Your task to perform on an android device: Open accessibility settings Image 0: 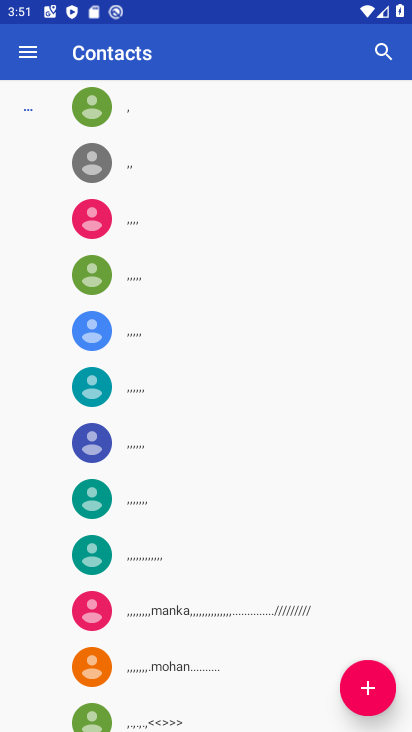
Step 0: press home button
Your task to perform on an android device: Open accessibility settings Image 1: 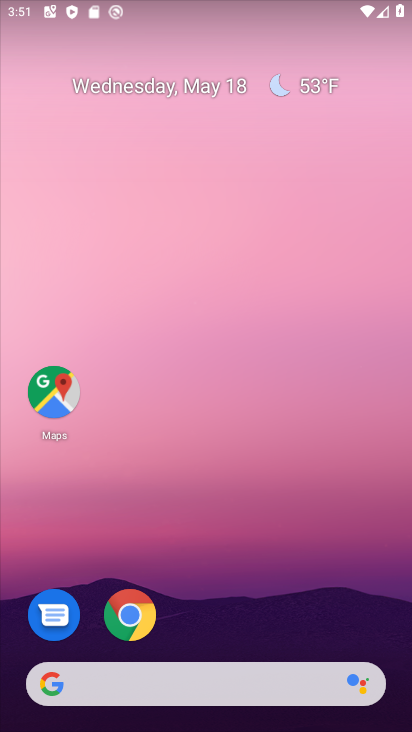
Step 1: drag from (282, 622) to (306, 68)
Your task to perform on an android device: Open accessibility settings Image 2: 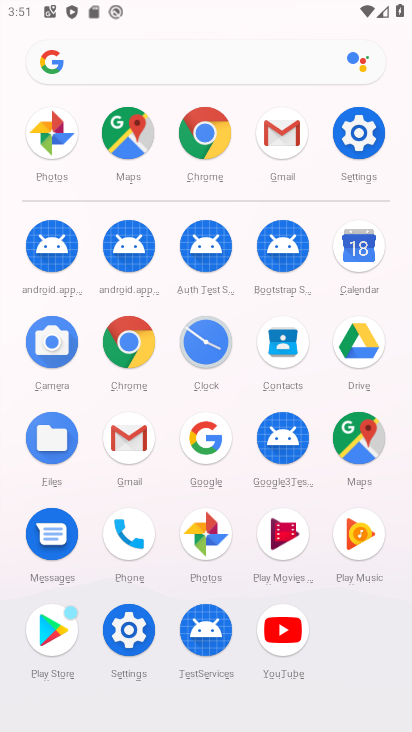
Step 2: click (358, 136)
Your task to perform on an android device: Open accessibility settings Image 3: 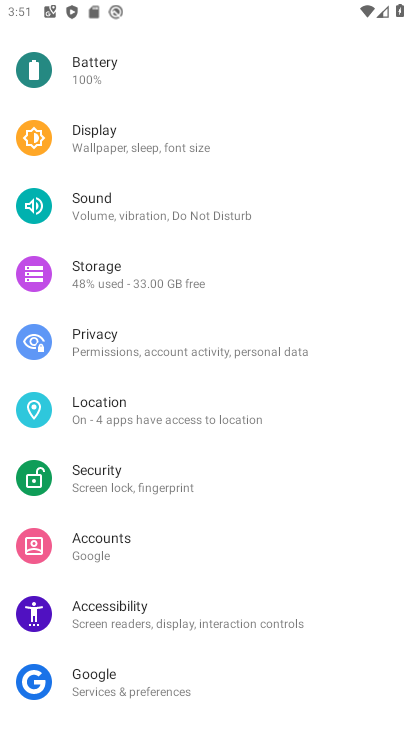
Step 3: drag from (190, 601) to (291, 124)
Your task to perform on an android device: Open accessibility settings Image 4: 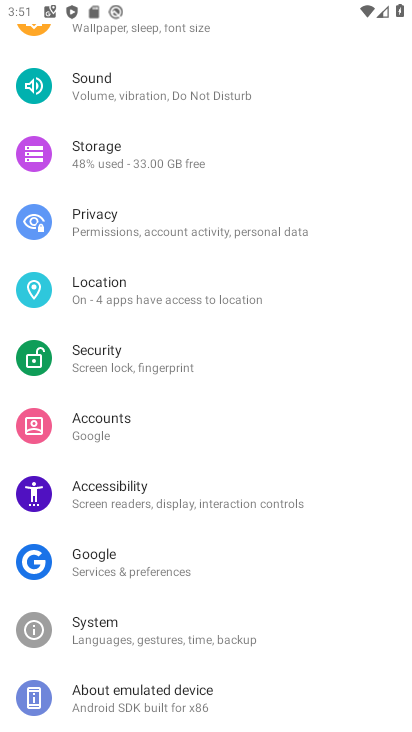
Step 4: drag from (219, 621) to (329, 92)
Your task to perform on an android device: Open accessibility settings Image 5: 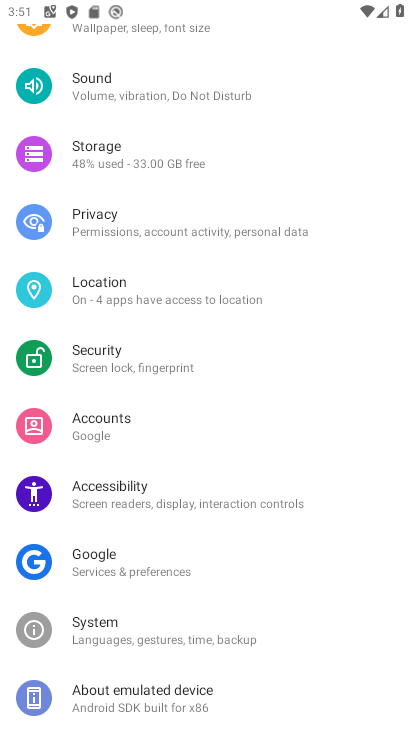
Step 5: click (173, 500)
Your task to perform on an android device: Open accessibility settings Image 6: 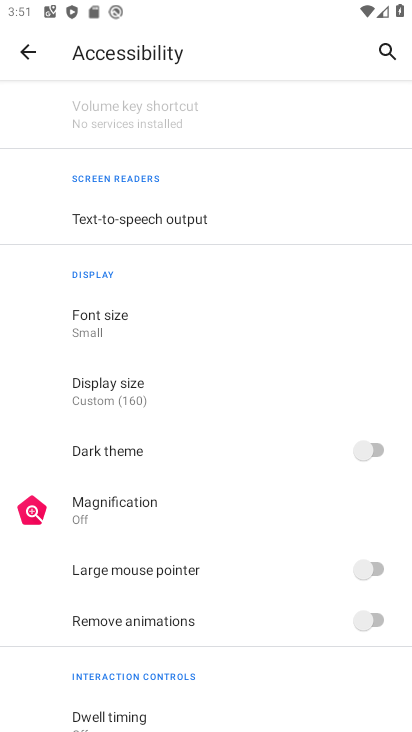
Step 6: task complete